Your task to perform on an android device: Open the calendar app, open the side menu, and click the "Day" option Image 0: 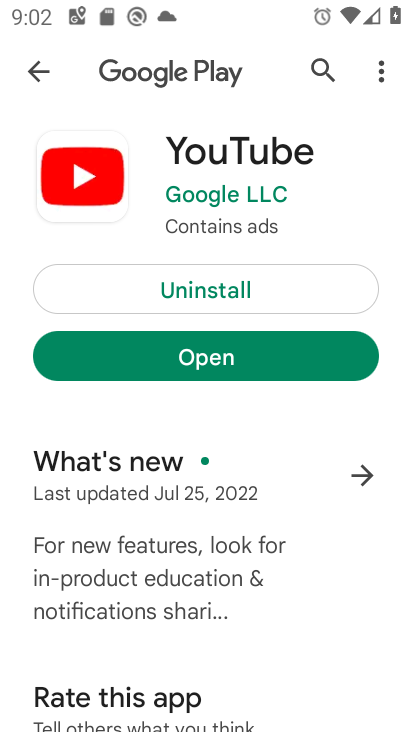
Step 0: press home button
Your task to perform on an android device: Open the calendar app, open the side menu, and click the "Day" option Image 1: 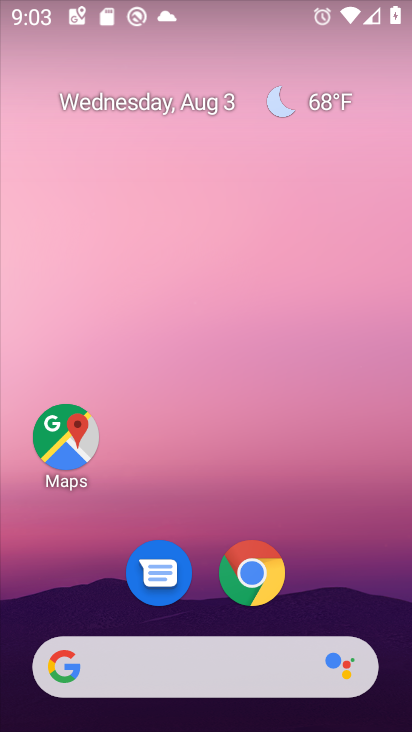
Step 1: drag from (359, 595) to (322, 4)
Your task to perform on an android device: Open the calendar app, open the side menu, and click the "Day" option Image 2: 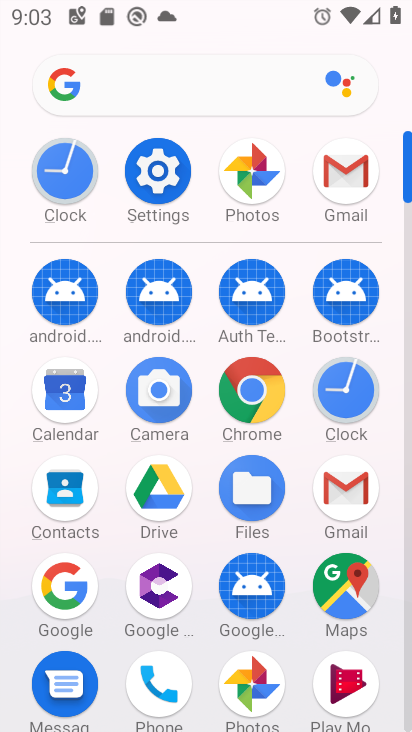
Step 2: click (69, 402)
Your task to perform on an android device: Open the calendar app, open the side menu, and click the "Day" option Image 3: 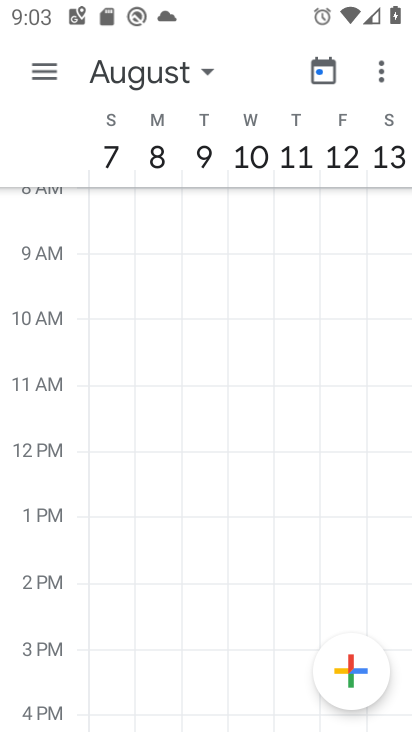
Step 3: click (40, 73)
Your task to perform on an android device: Open the calendar app, open the side menu, and click the "Day" option Image 4: 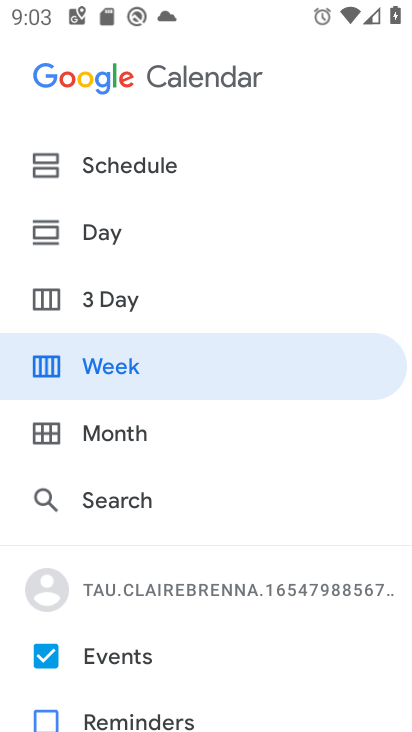
Step 4: click (45, 224)
Your task to perform on an android device: Open the calendar app, open the side menu, and click the "Day" option Image 5: 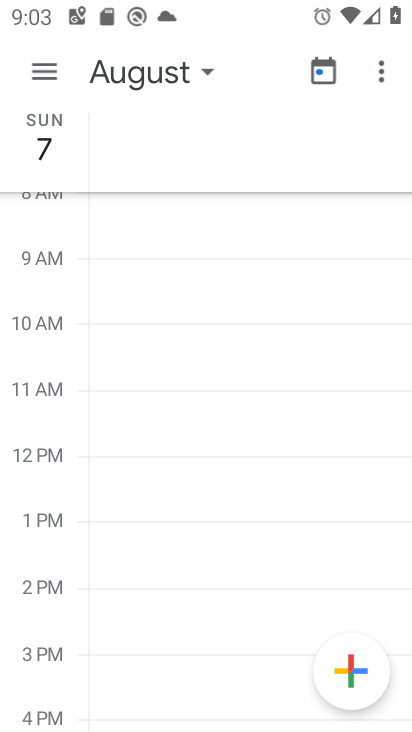
Step 5: task complete